Your task to perform on an android device: change the clock style Image 0: 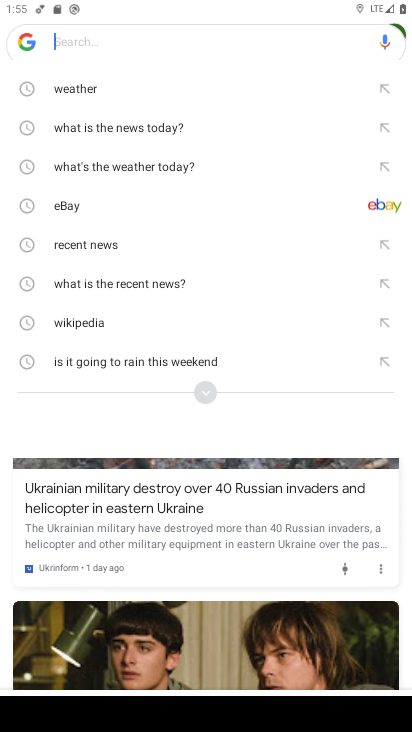
Step 0: press home button
Your task to perform on an android device: change the clock style Image 1: 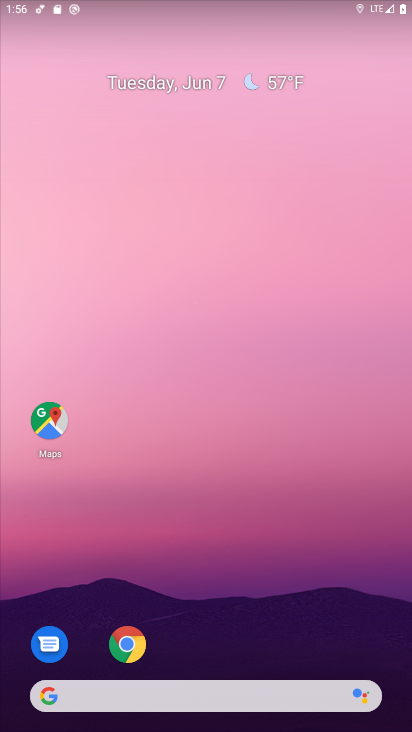
Step 1: drag from (232, 619) to (240, 9)
Your task to perform on an android device: change the clock style Image 2: 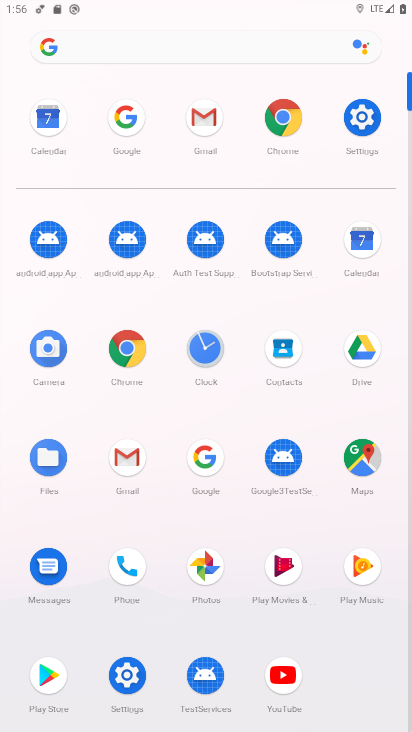
Step 2: click (203, 348)
Your task to perform on an android device: change the clock style Image 3: 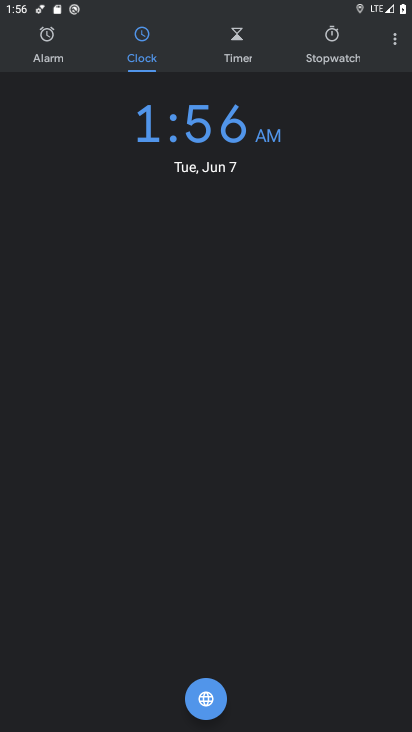
Step 3: click (382, 50)
Your task to perform on an android device: change the clock style Image 4: 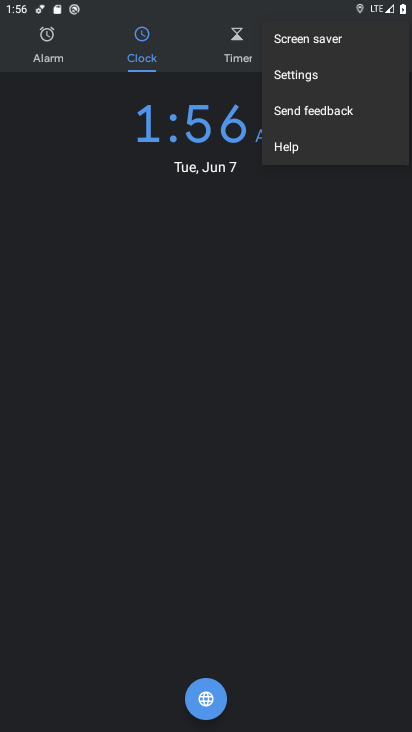
Step 4: click (343, 70)
Your task to perform on an android device: change the clock style Image 5: 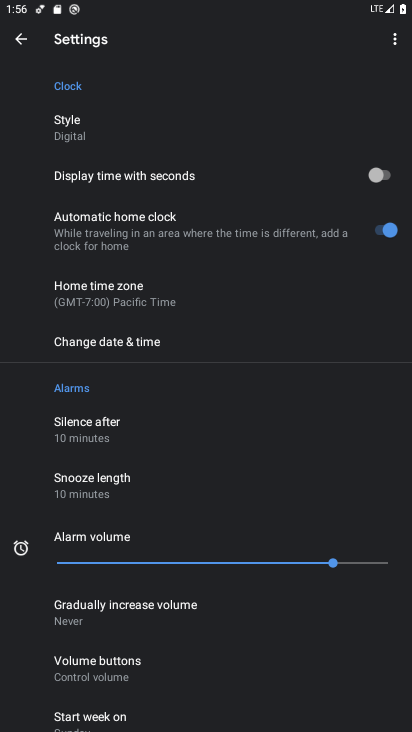
Step 5: click (77, 124)
Your task to perform on an android device: change the clock style Image 6: 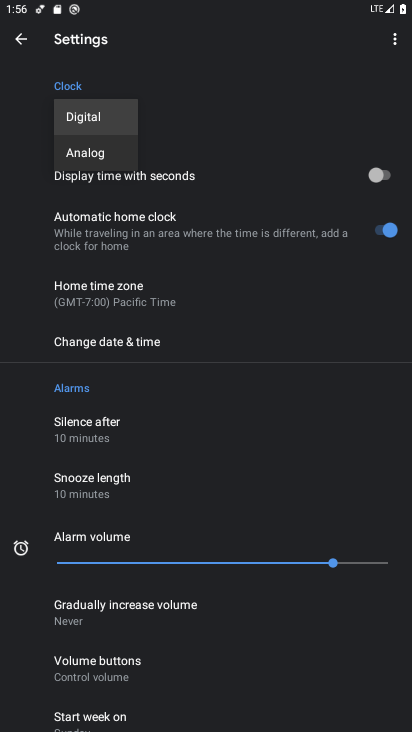
Step 6: click (101, 157)
Your task to perform on an android device: change the clock style Image 7: 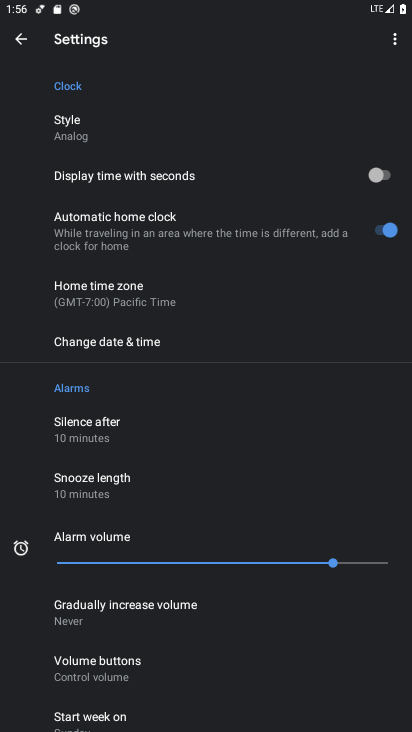
Step 7: task complete